Your task to perform on an android device: Check the latest 3D printers on Target. Image 0: 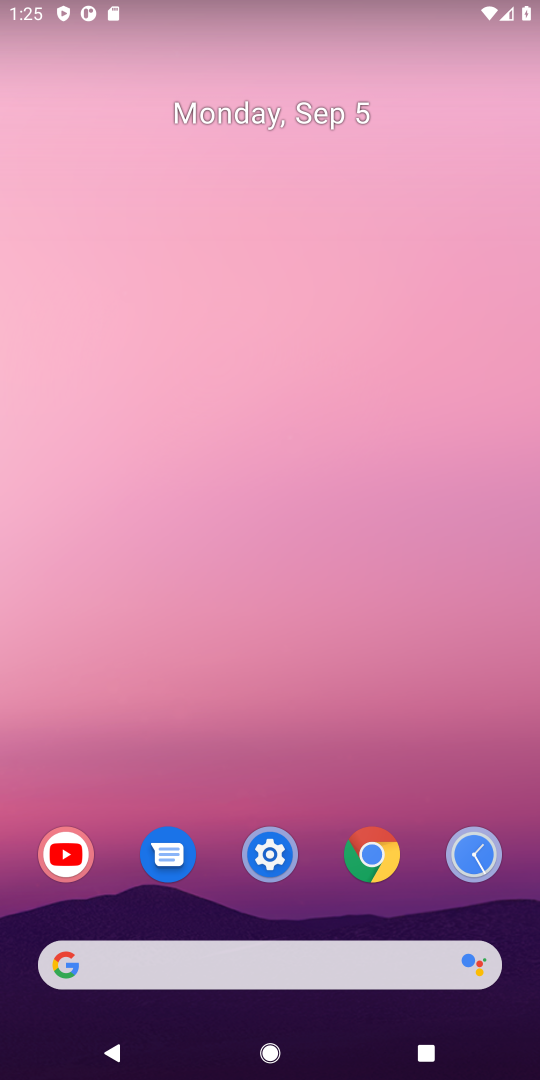
Step 0: click (383, 967)
Your task to perform on an android device: Check the latest 3D printers on Target. Image 1: 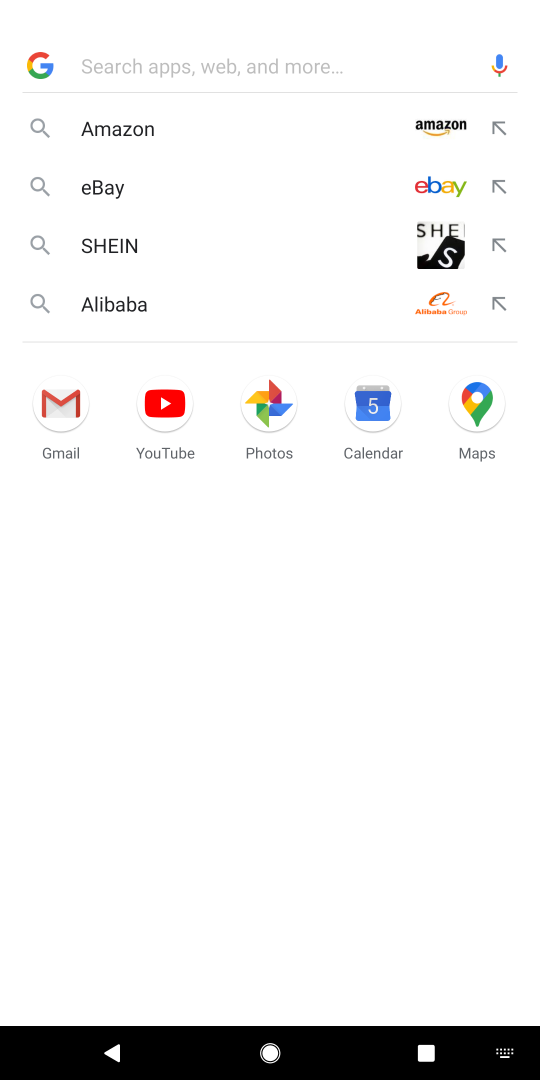
Step 1: type " Target"
Your task to perform on an android device: Check the latest 3D printers on Target. Image 2: 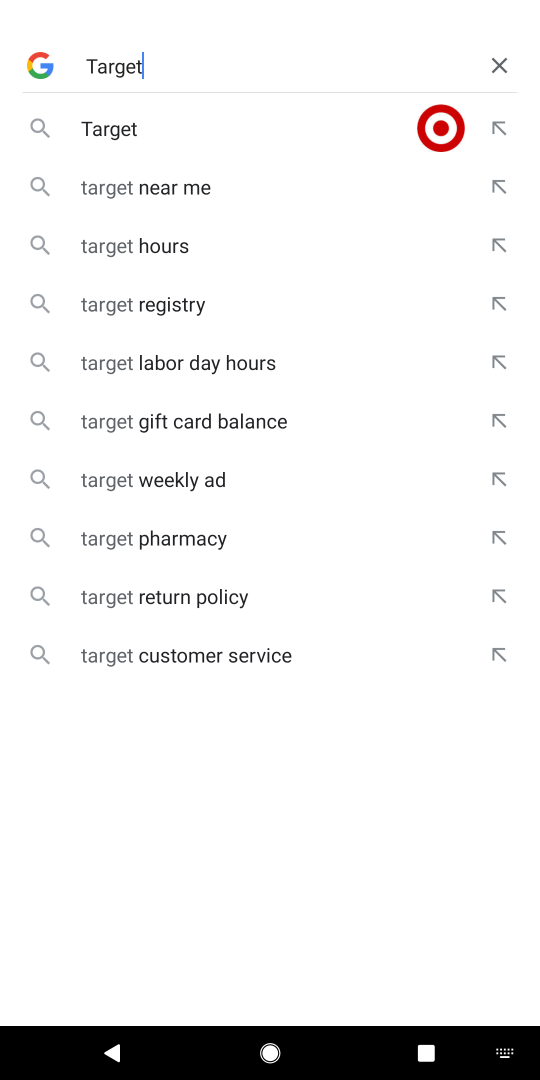
Step 2: click (146, 126)
Your task to perform on an android device: Check the latest 3D printers on Target. Image 3: 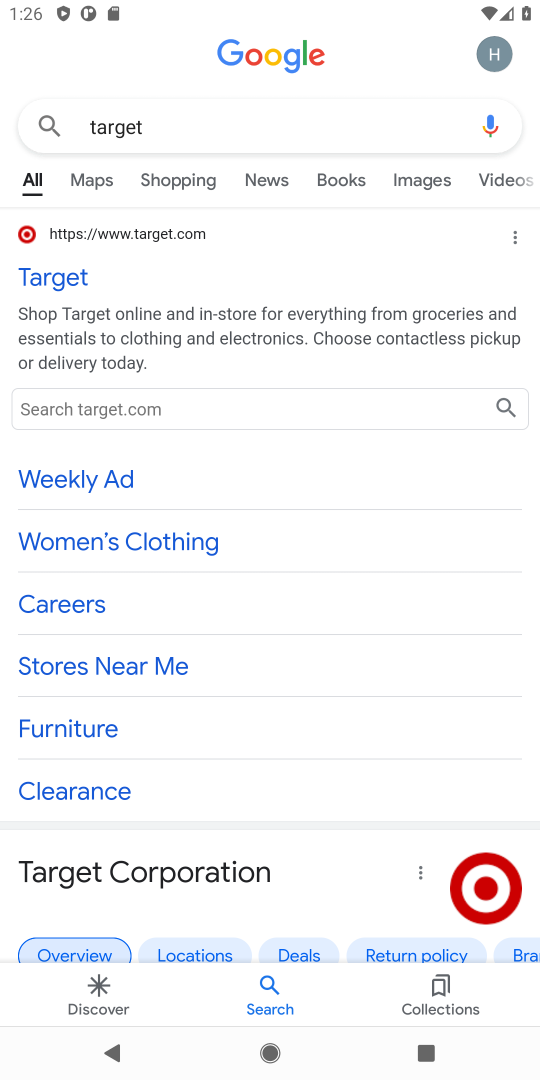
Step 3: click (29, 272)
Your task to perform on an android device: Check the latest 3D printers on Target. Image 4: 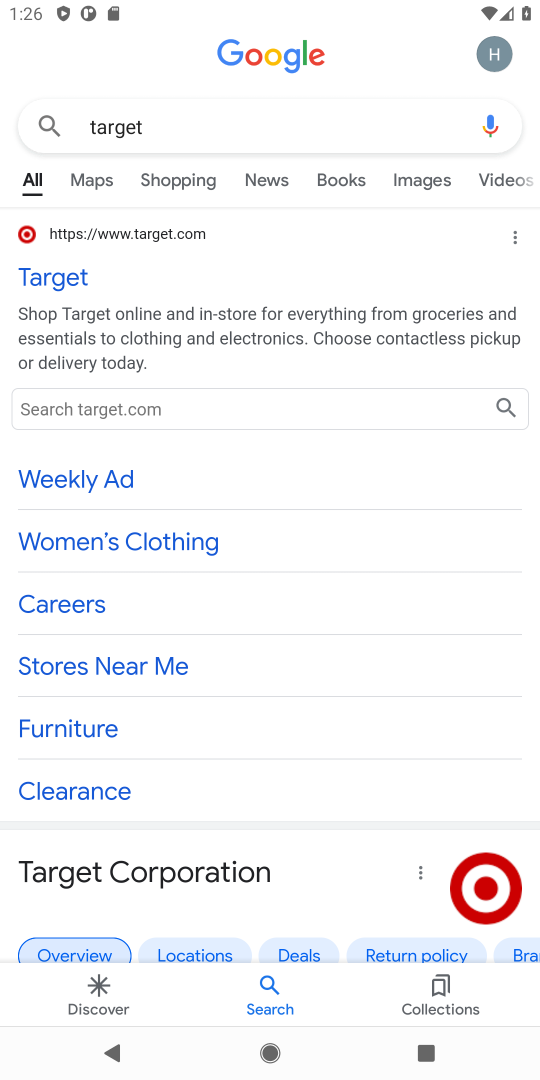
Step 4: click (60, 283)
Your task to perform on an android device: Check the latest 3D printers on Target. Image 5: 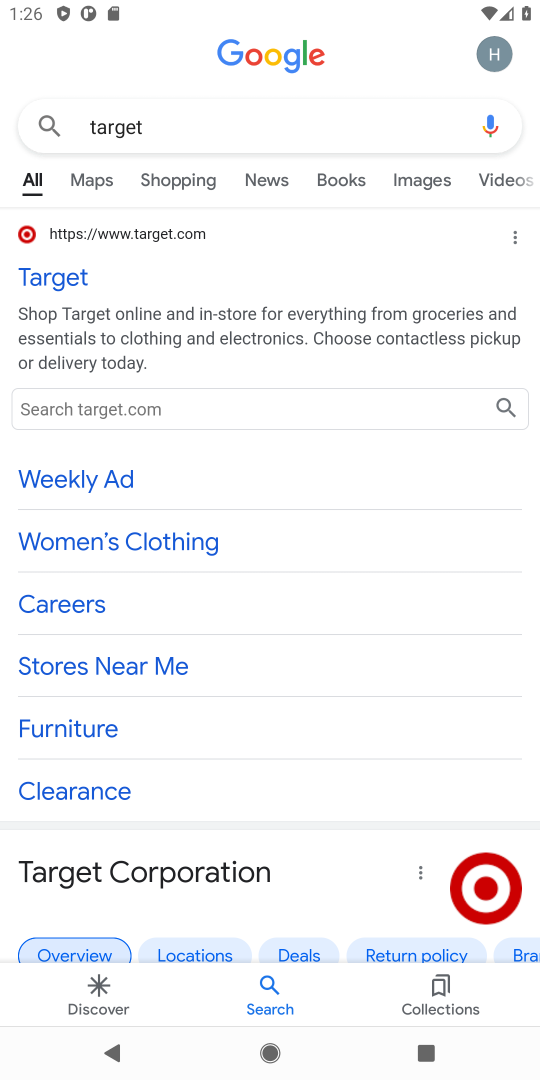
Step 5: click (59, 293)
Your task to perform on an android device: Check the latest 3D printers on Target. Image 6: 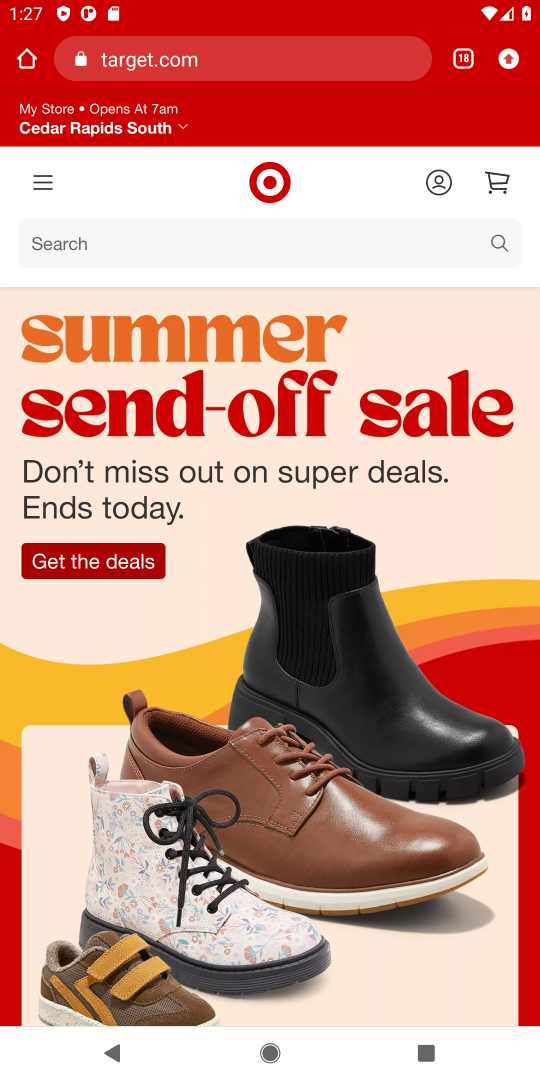
Step 6: click (305, 238)
Your task to perform on an android device: Check the latest 3D printers on Target. Image 7: 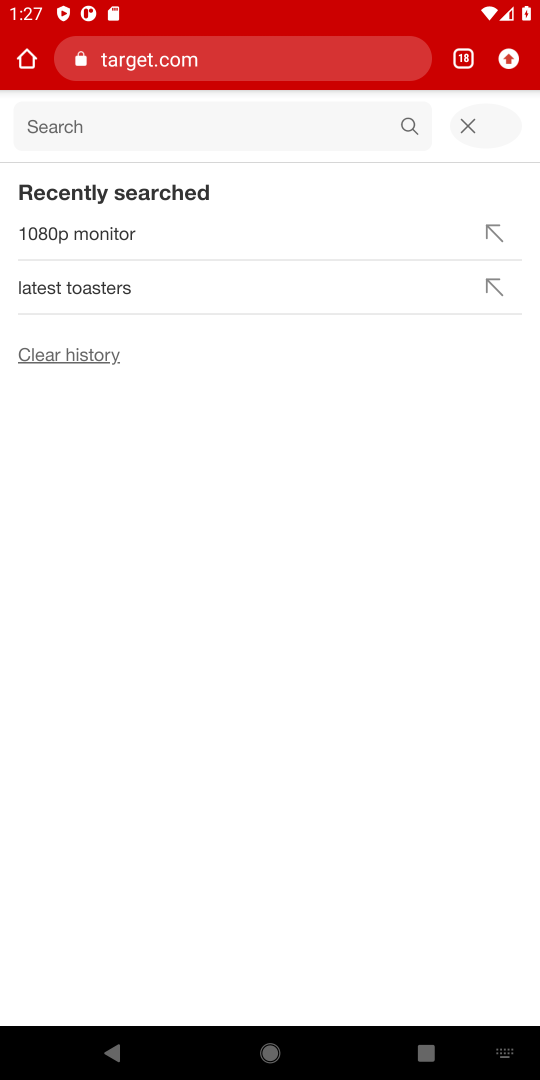
Step 7: type "3D printers"
Your task to perform on an android device: Check the latest 3D printers on Target. Image 8: 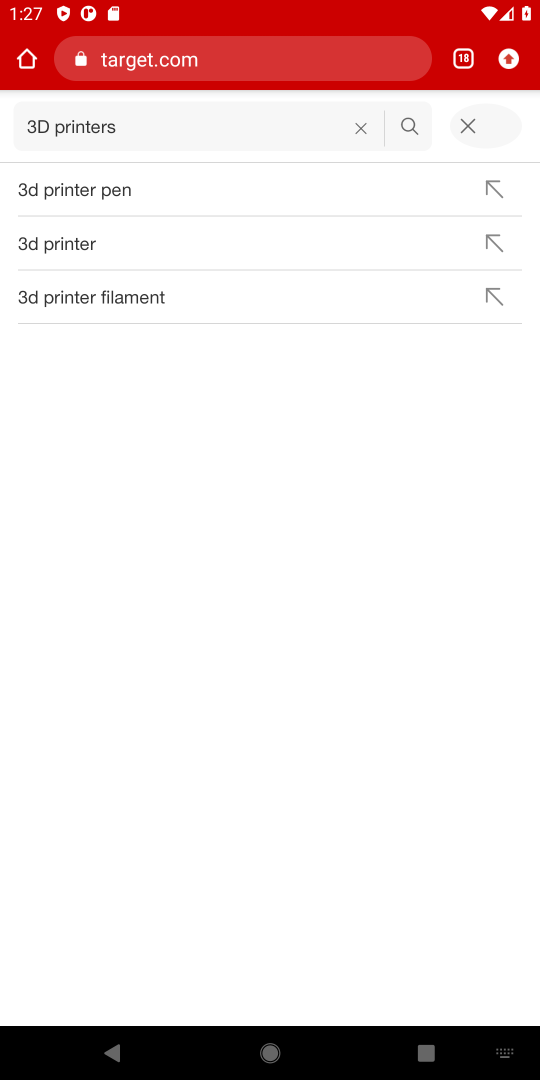
Step 8: click (128, 245)
Your task to perform on an android device: Check the latest 3D printers on Target. Image 9: 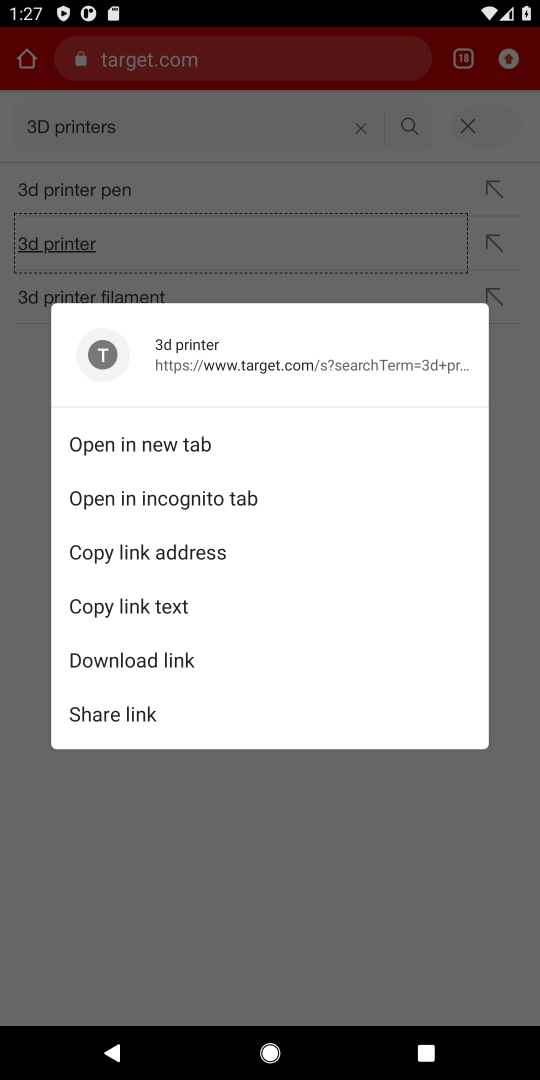
Step 9: click (286, 807)
Your task to perform on an android device: Check the latest 3D printers on Target. Image 10: 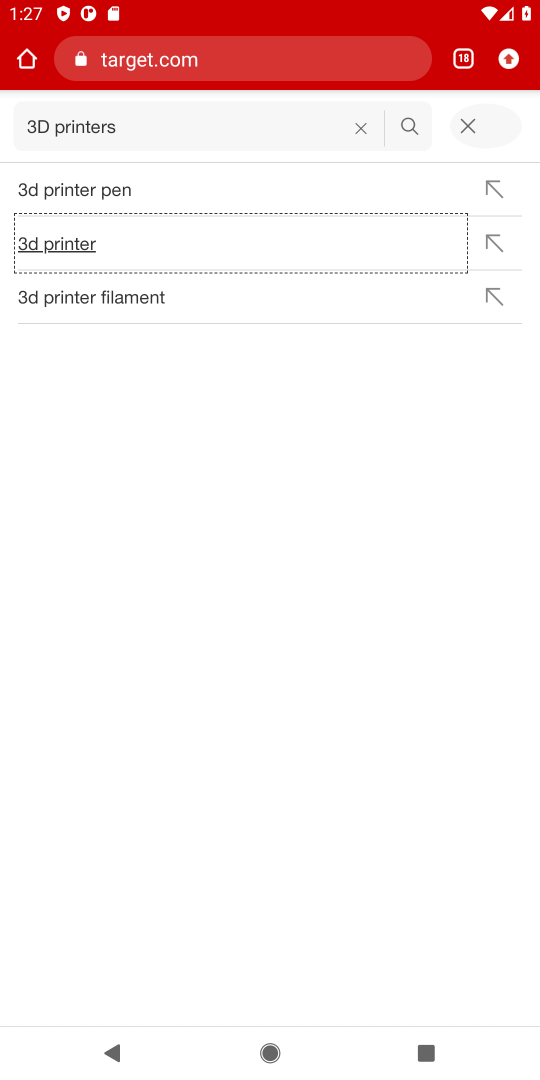
Step 10: click (402, 121)
Your task to perform on an android device: Check the latest 3D printers on Target. Image 11: 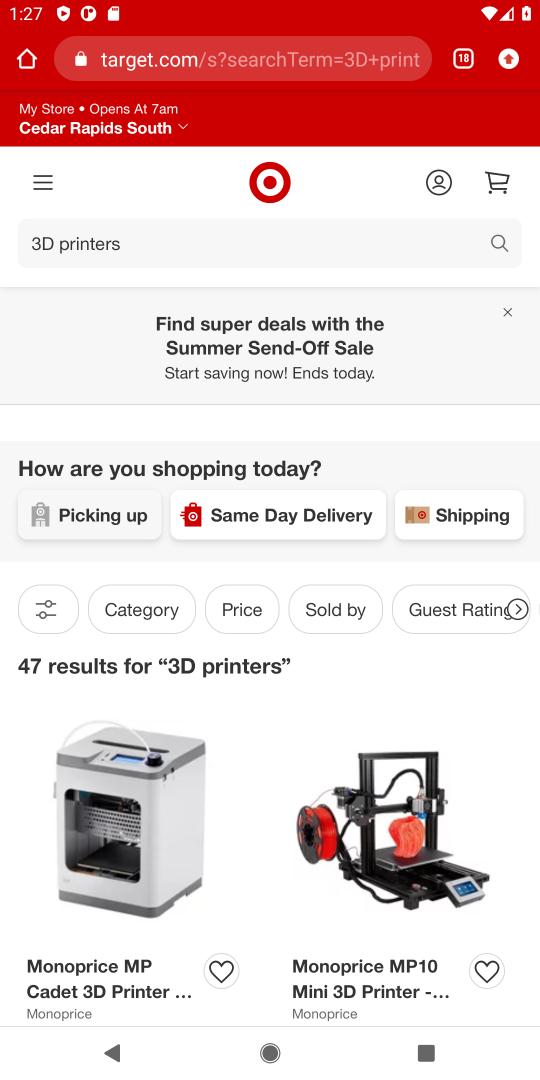
Step 11: task complete